Your task to perform on an android device: Set the phone to "Do not disturb". Image 0: 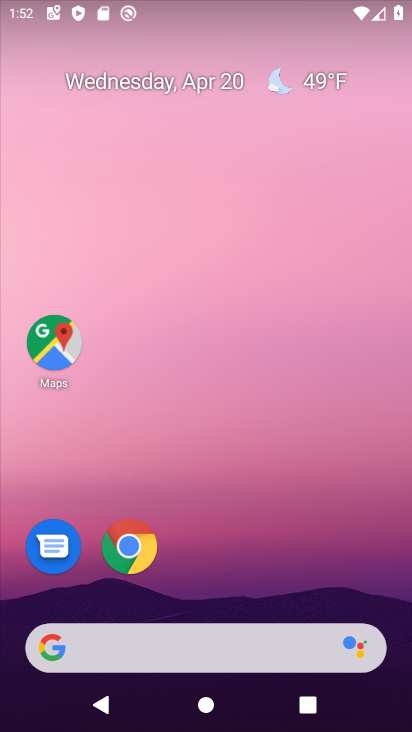
Step 0: drag from (221, 53) to (224, 386)
Your task to perform on an android device: Set the phone to "Do not disturb". Image 1: 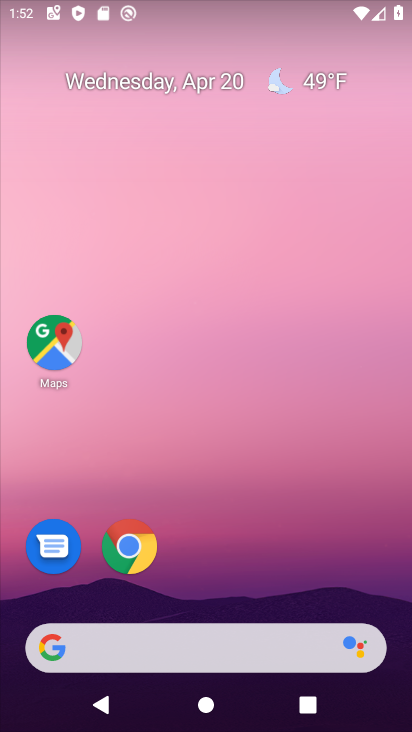
Step 1: drag from (197, 123) to (236, 431)
Your task to perform on an android device: Set the phone to "Do not disturb". Image 2: 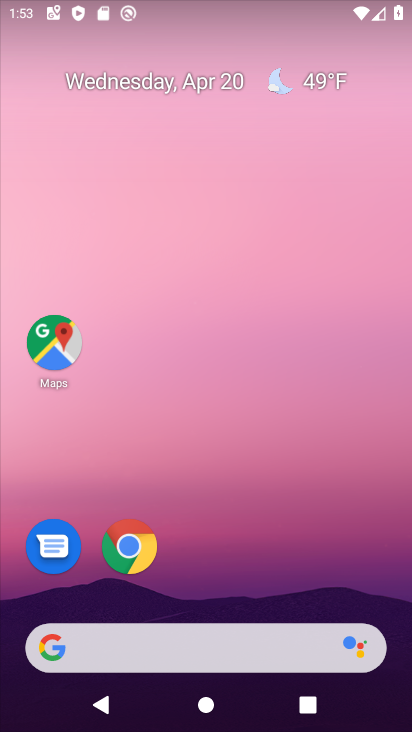
Step 2: drag from (103, 20) to (147, 496)
Your task to perform on an android device: Set the phone to "Do not disturb". Image 3: 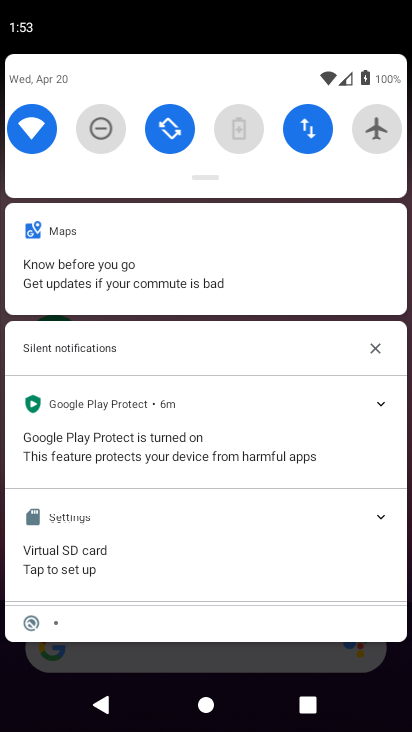
Step 3: click (101, 137)
Your task to perform on an android device: Set the phone to "Do not disturb". Image 4: 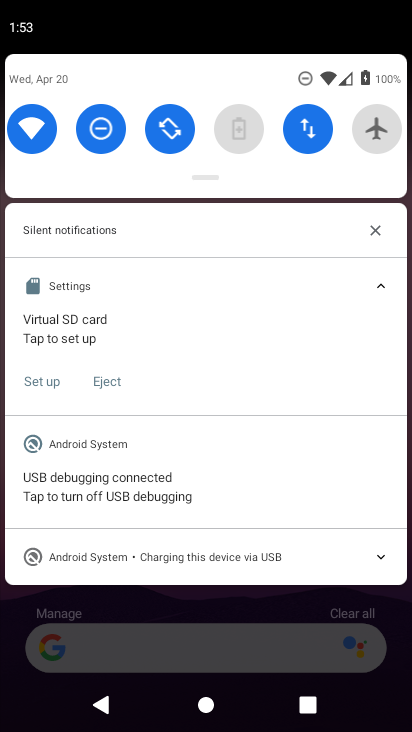
Step 4: task complete